Your task to perform on an android device: What is the news today? Image 0: 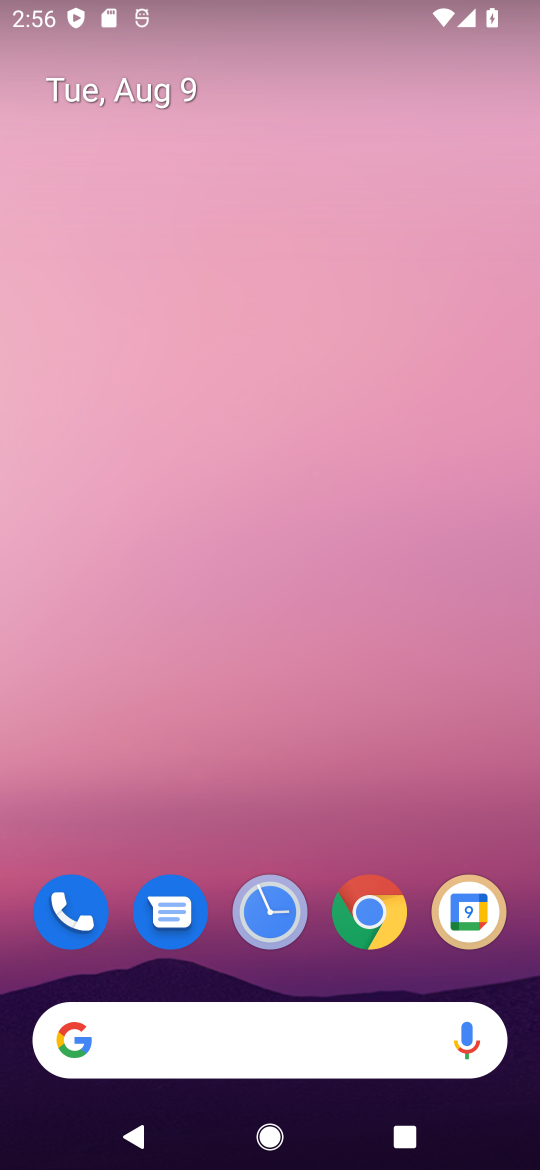
Step 0: drag from (6, 529) to (479, 525)
Your task to perform on an android device: What is the news today? Image 1: 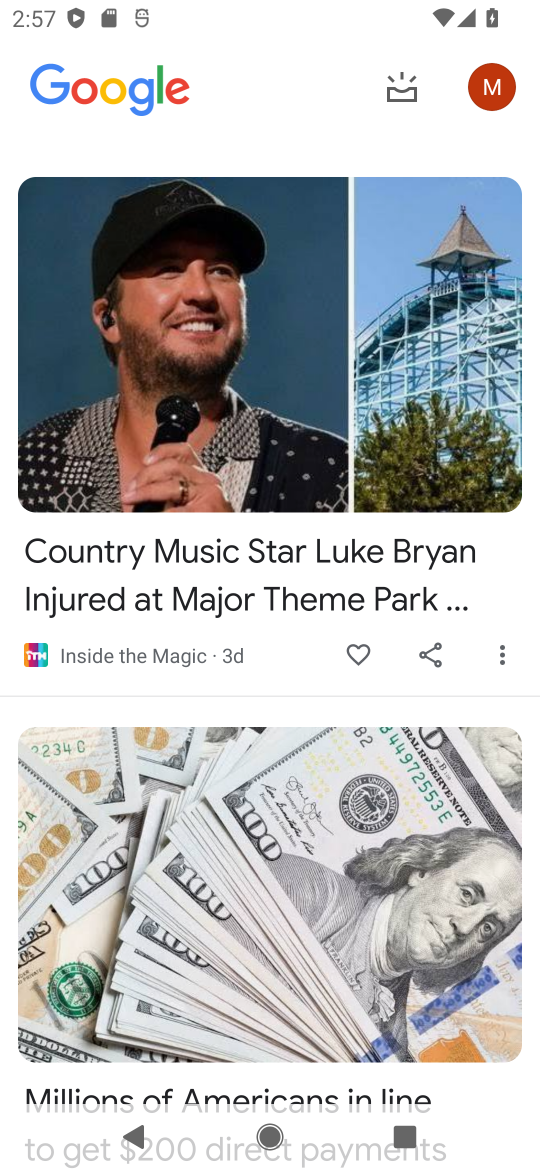
Step 1: task complete